Your task to perform on an android device: Is it going to rain this weekend? Image 0: 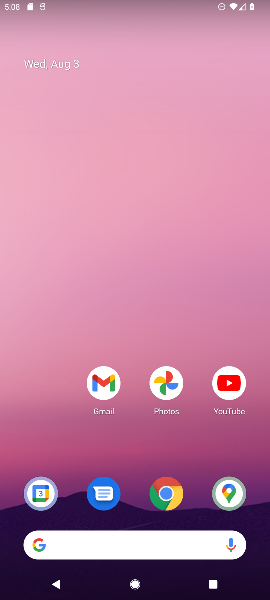
Step 0: press home button
Your task to perform on an android device: Is it going to rain this weekend? Image 1: 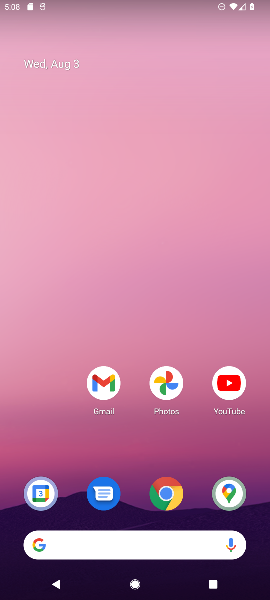
Step 1: drag from (64, 287) to (66, 197)
Your task to perform on an android device: Is it going to rain this weekend? Image 2: 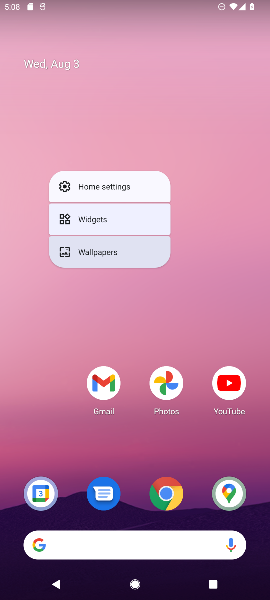
Step 2: click (32, 375)
Your task to perform on an android device: Is it going to rain this weekend? Image 3: 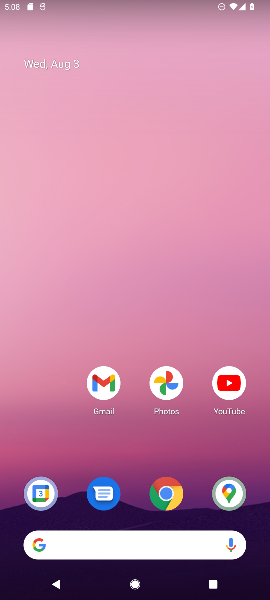
Step 3: click (178, 546)
Your task to perform on an android device: Is it going to rain this weekend? Image 4: 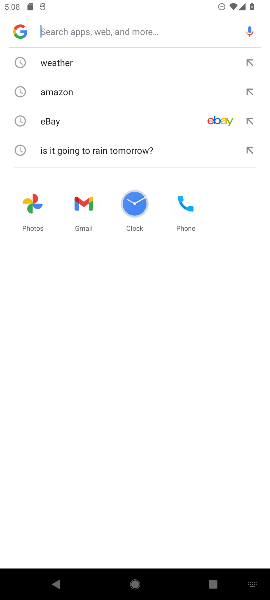
Step 4: click (69, 59)
Your task to perform on an android device: Is it going to rain this weekend? Image 5: 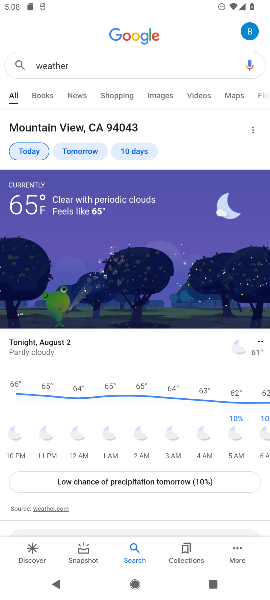
Step 5: click (137, 151)
Your task to perform on an android device: Is it going to rain this weekend? Image 6: 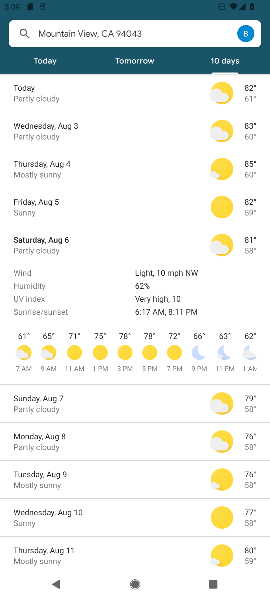
Step 6: task complete